Your task to perform on an android device: What is the recent news? Image 0: 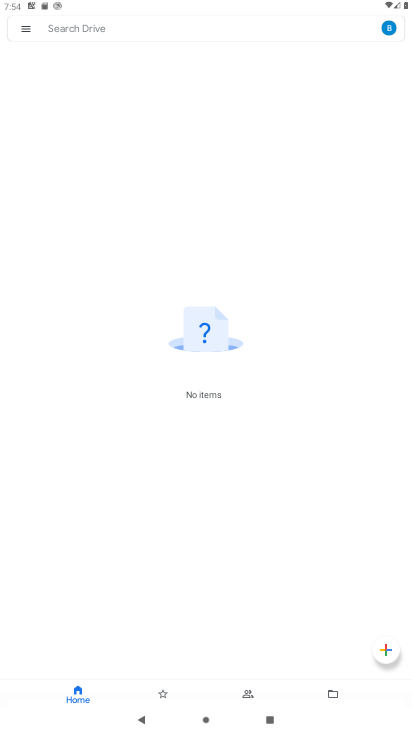
Step 0: press home button
Your task to perform on an android device: What is the recent news? Image 1: 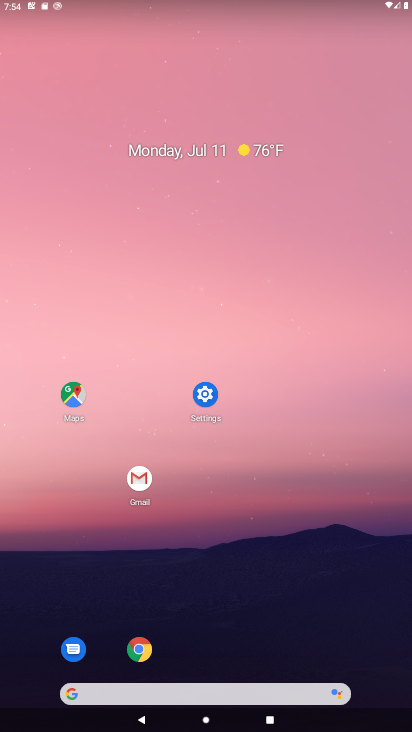
Step 1: task complete